Your task to perform on an android device: move a message to another label in the gmail app Image 0: 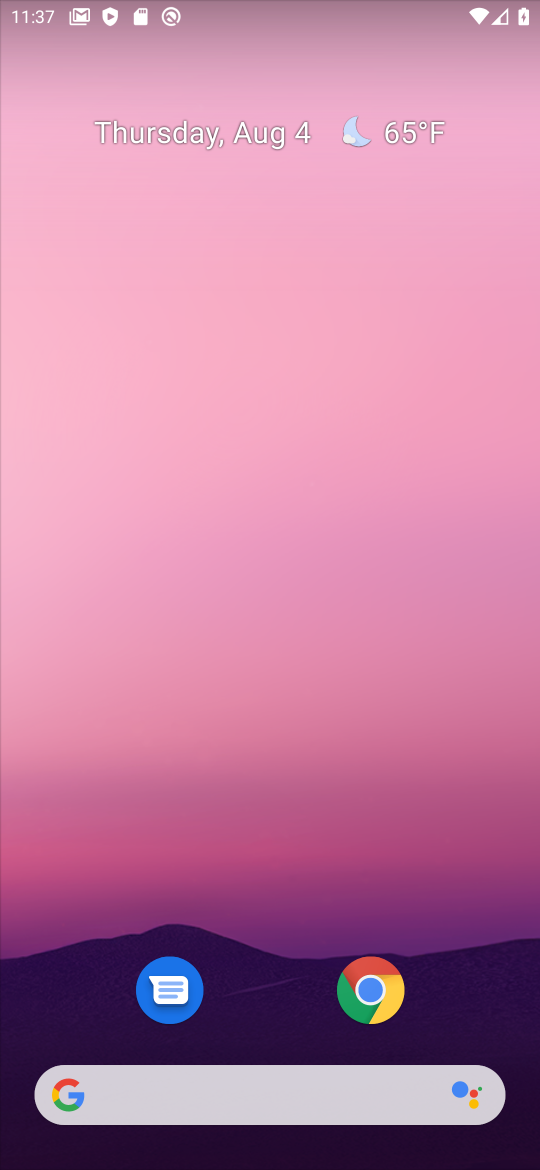
Step 0: drag from (292, 936) to (282, 150)
Your task to perform on an android device: move a message to another label in the gmail app Image 1: 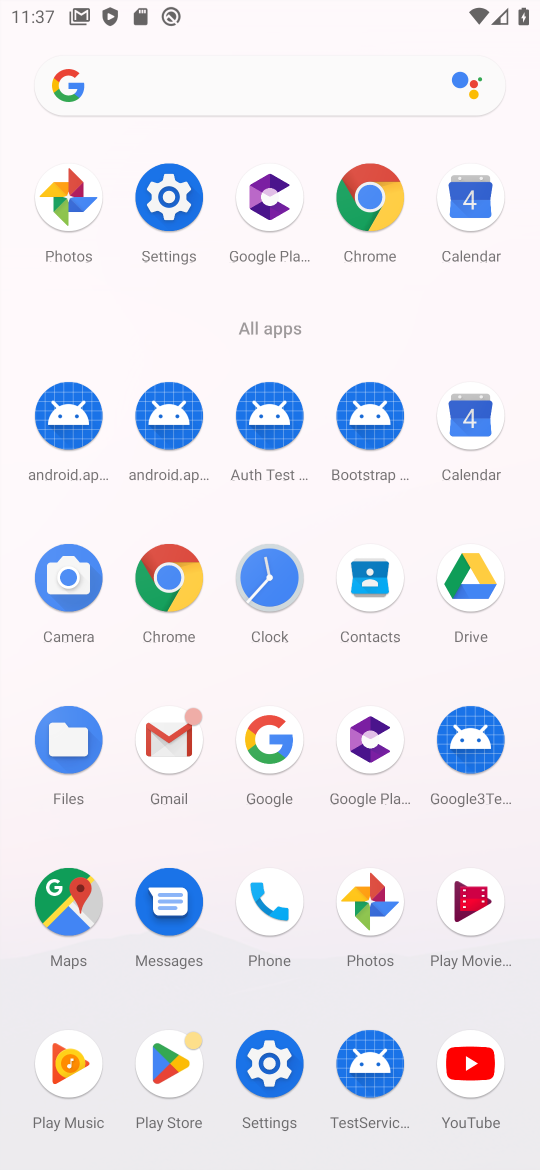
Step 1: click (157, 758)
Your task to perform on an android device: move a message to another label in the gmail app Image 2: 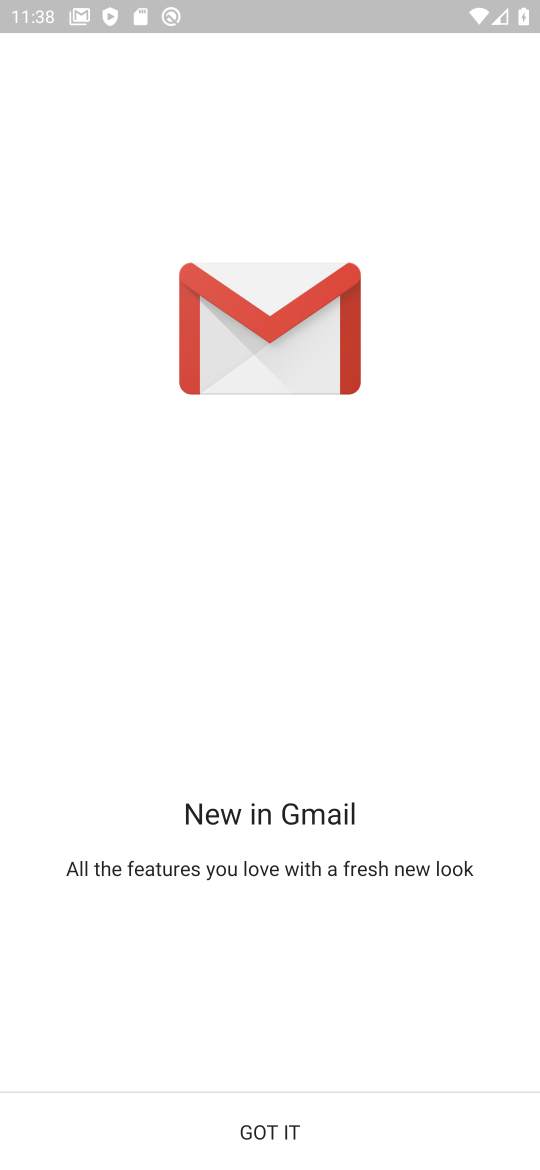
Step 2: click (314, 1148)
Your task to perform on an android device: move a message to another label in the gmail app Image 3: 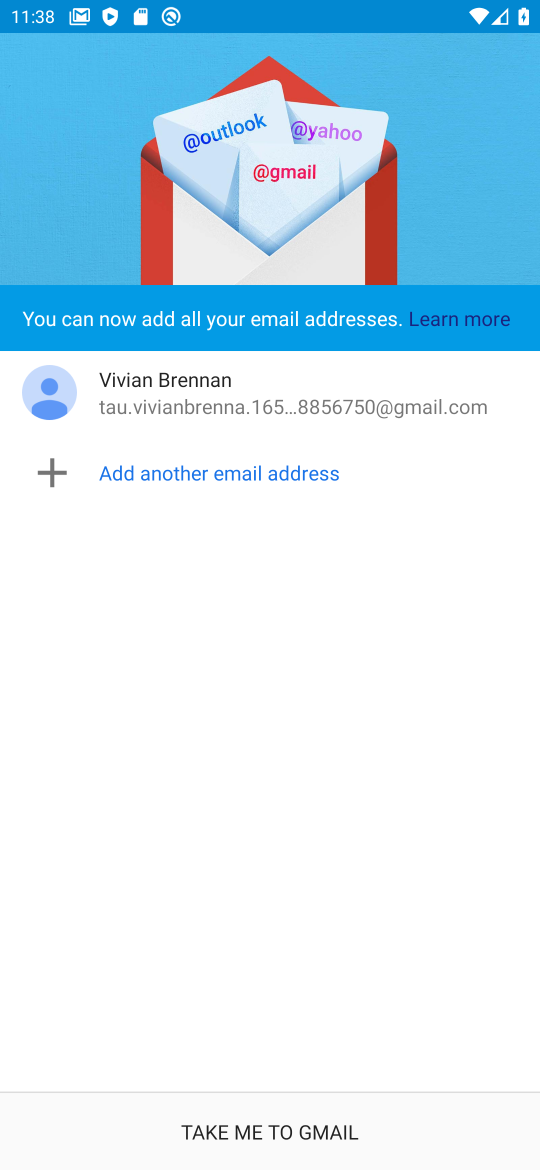
Step 3: click (302, 1143)
Your task to perform on an android device: move a message to another label in the gmail app Image 4: 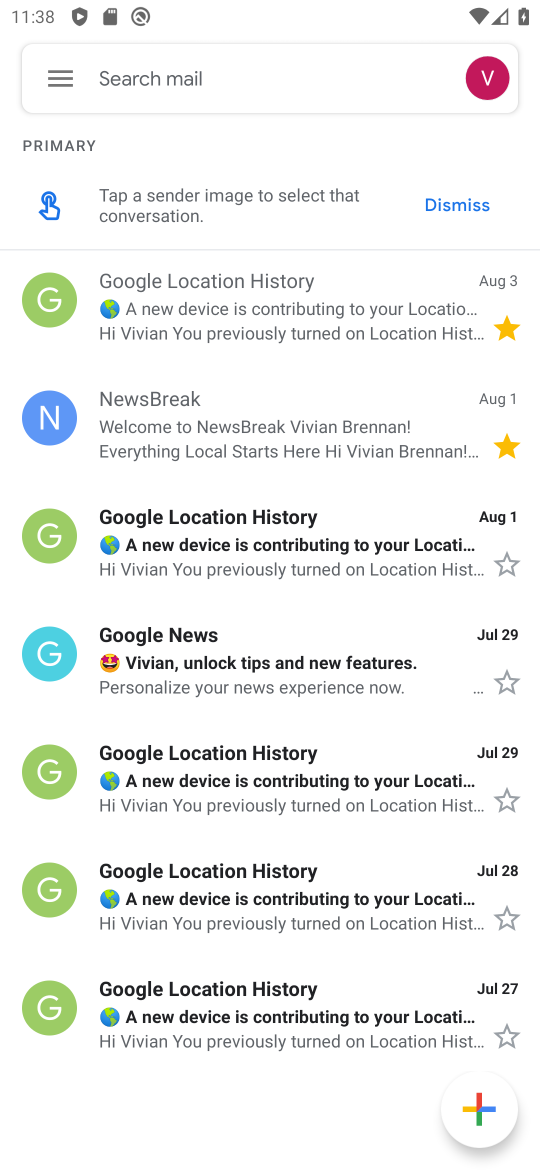
Step 4: click (303, 895)
Your task to perform on an android device: move a message to another label in the gmail app Image 5: 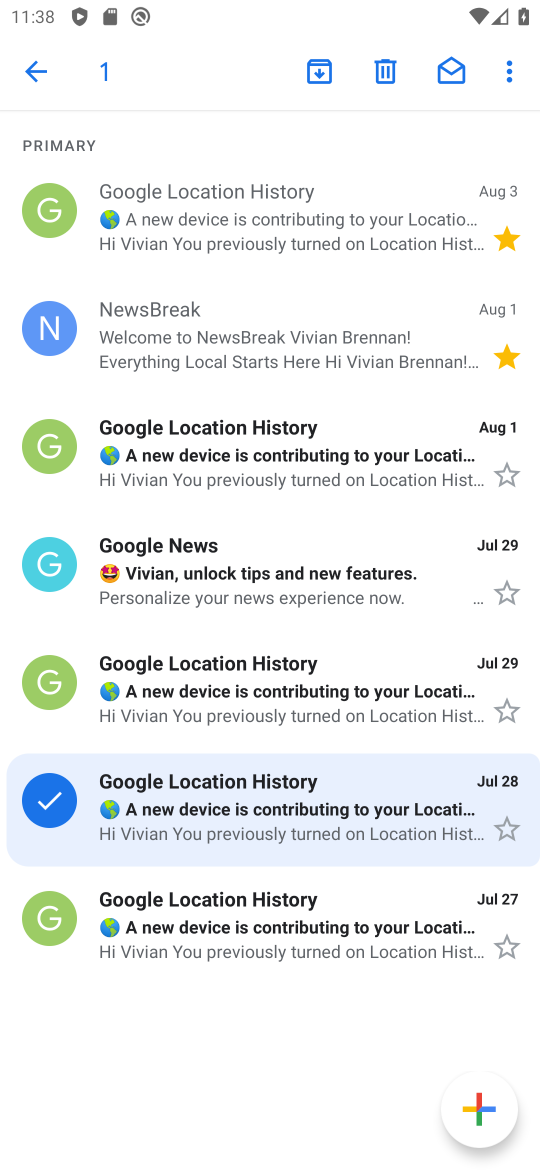
Step 5: click (498, 82)
Your task to perform on an android device: move a message to another label in the gmail app Image 6: 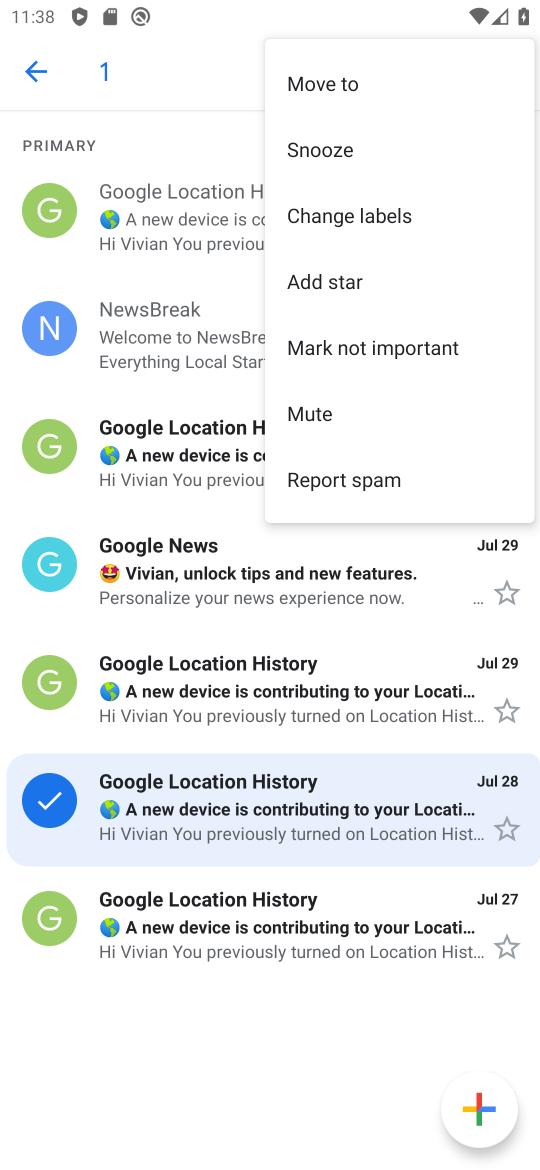
Step 6: click (362, 92)
Your task to perform on an android device: move a message to another label in the gmail app Image 7: 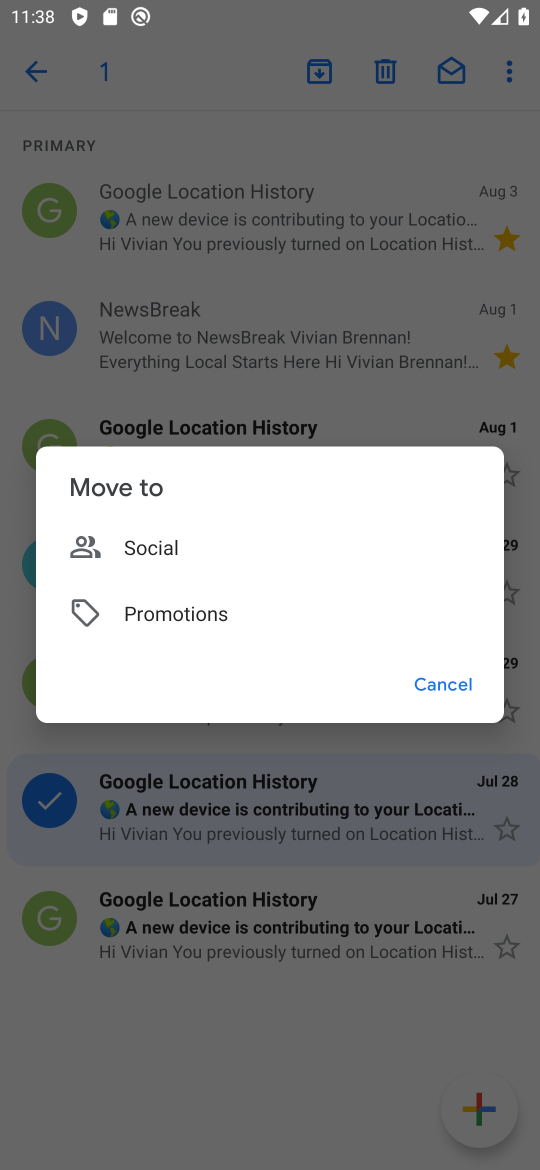
Step 7: click (326, 579)
Your task to perform on an android device: move a message to another label in the gmail app Image 8: 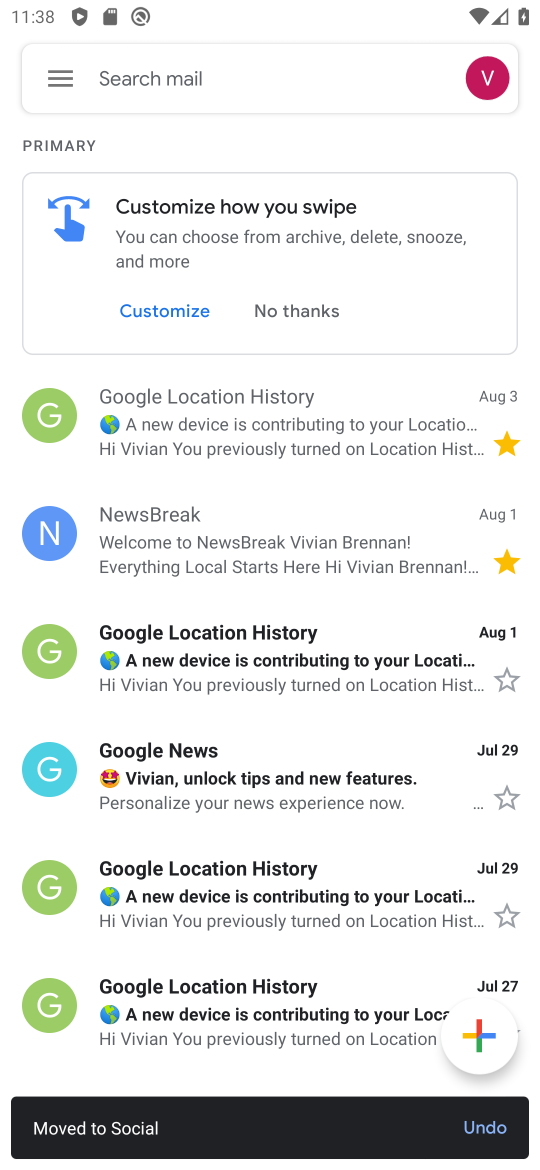
Step 8: task complete